Your task to perform on an android device: Go to location settings Image 0: 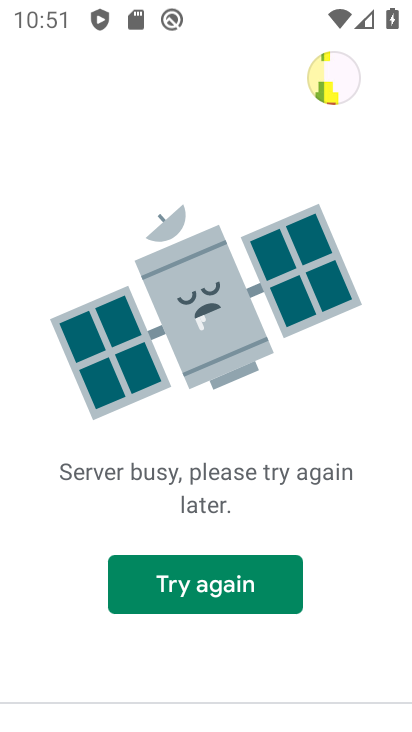
Step 0: press home button
Your task to perform on an android device: Go to location settings Image 1: 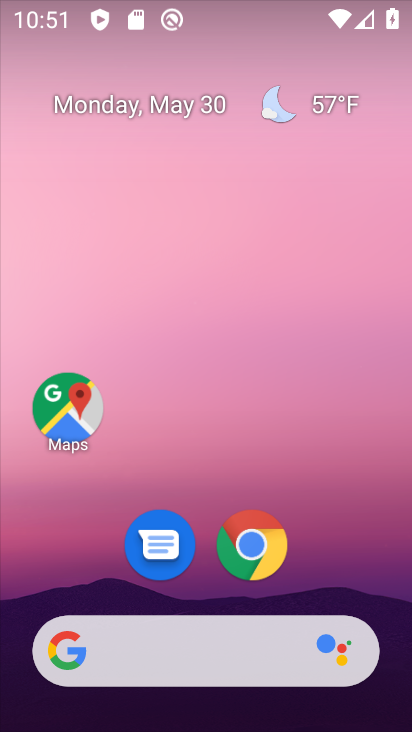
Step 1: drag from (210, 689) to (239, 181)
Your task to perform on an android device: Go to location settings Image 2: 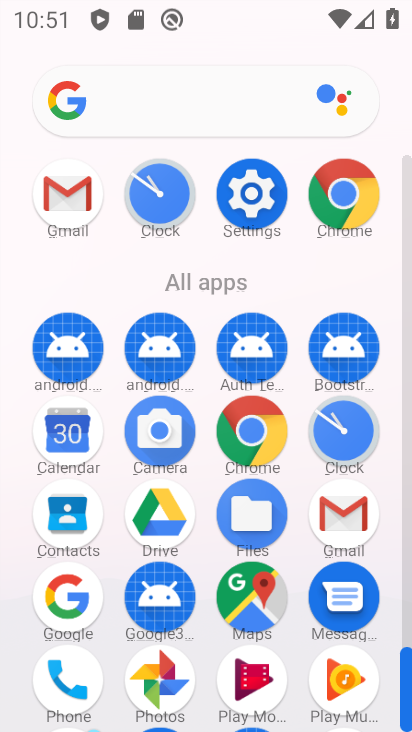
Step 2: click (259, 201)
Your task to perform on an android device: Go to location settings Image 3: 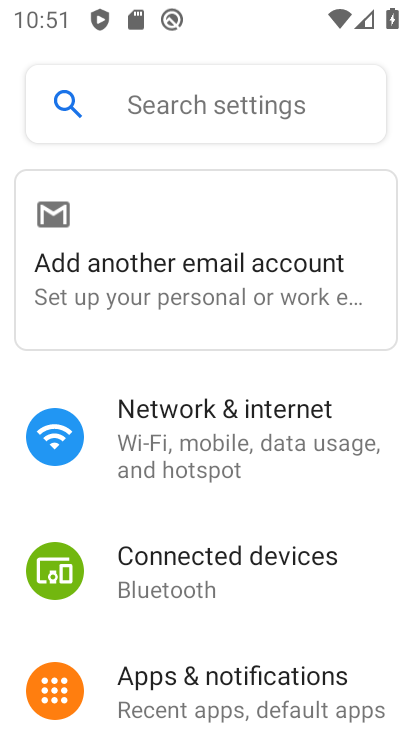
Step 3: click (229, 109)
Your task to perform on an android device: Go to location settings Image 4: 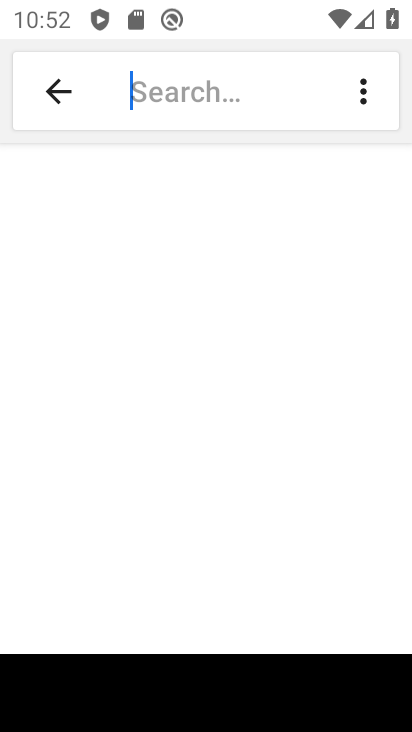
Step 4: drag from (384, 704) to (355, 439)
Your task to perform on an android device: Go to location settings Image 5: 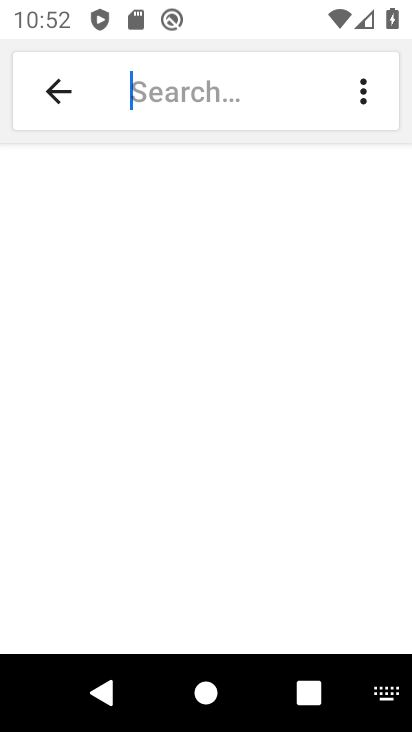
Step 5: click (386, 698)
Your task to perform on an android device: Go to location settings Image 6: 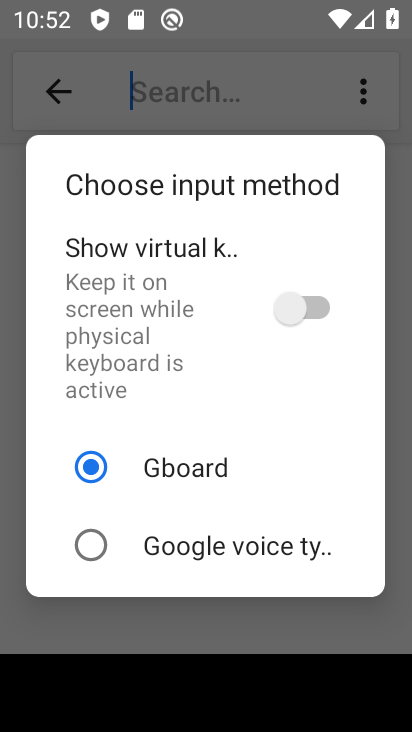
Step 6: click (312, 291)
Your task to perform on an android device: Go to location settings Image 7: 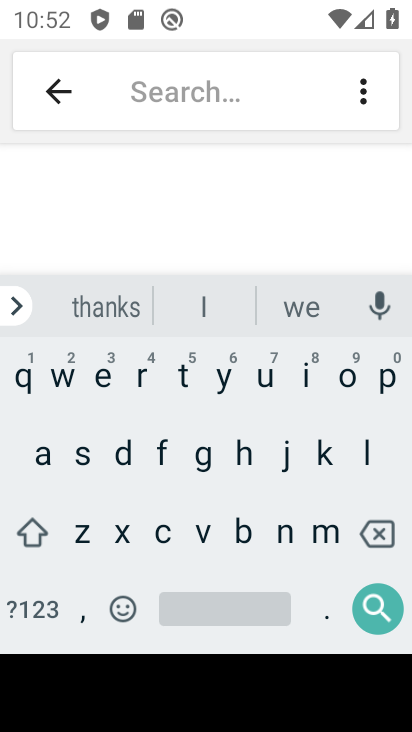
Step 7: click (360, 459)
Your task to perform on an android device: Go to location settings Image 8: 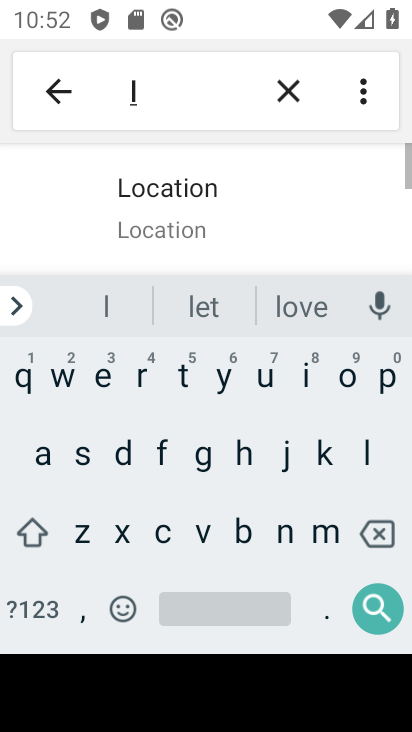
Step 8: click (345, 382)
Your task to perform on an android device: Go to location settings Image 9: 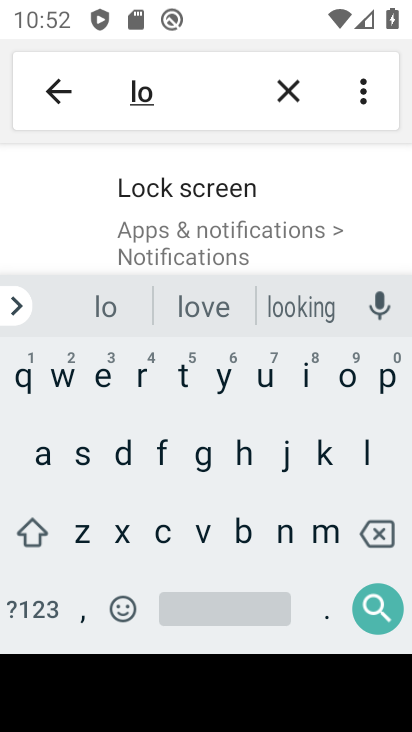
Step 9: press back button
Your task to perform on an android device: Go to location settings Image 10: 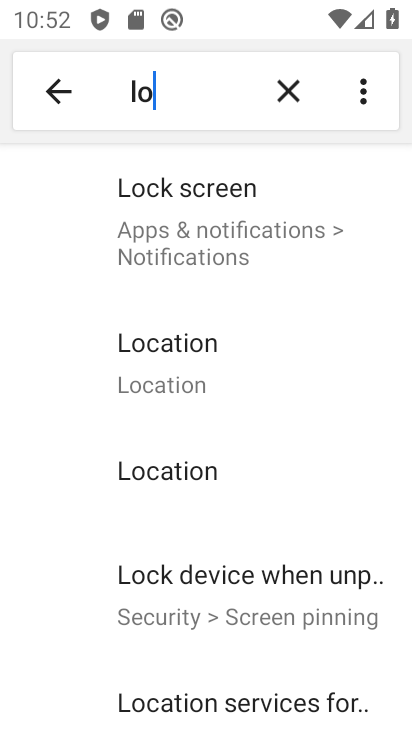
Step 10: click (160, 370)
Your task to perform on an android device: Go to location settings Image 11: 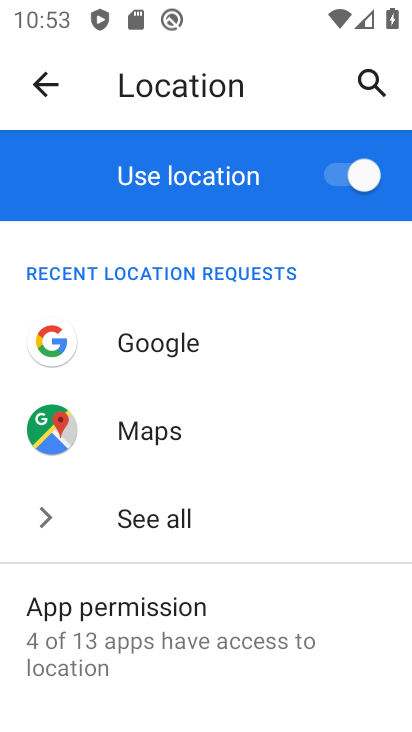
Step 11: task complete